Your task to perform on an android device: turn off location history Image 0: 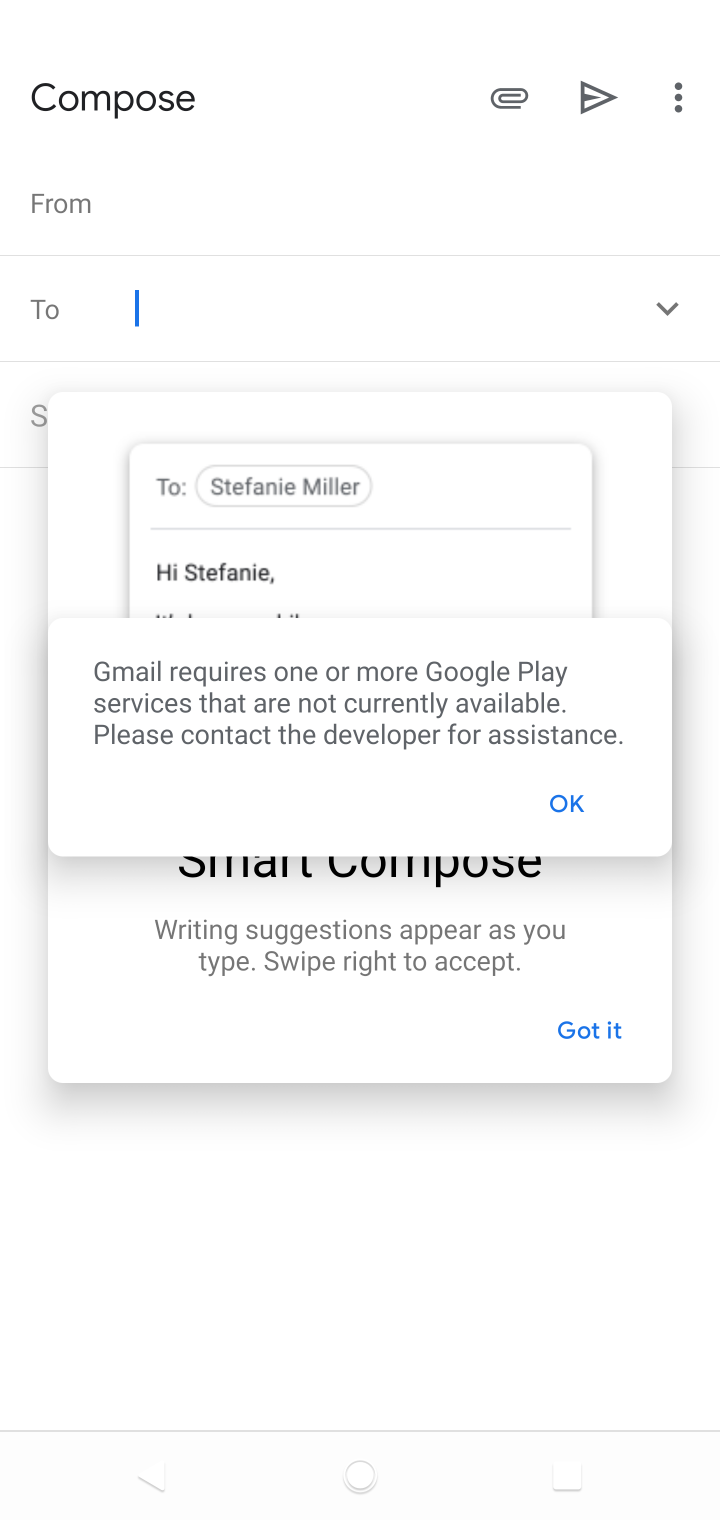
Step 0: press home button
Your task to perform on an android device: turn off location history Image 1: 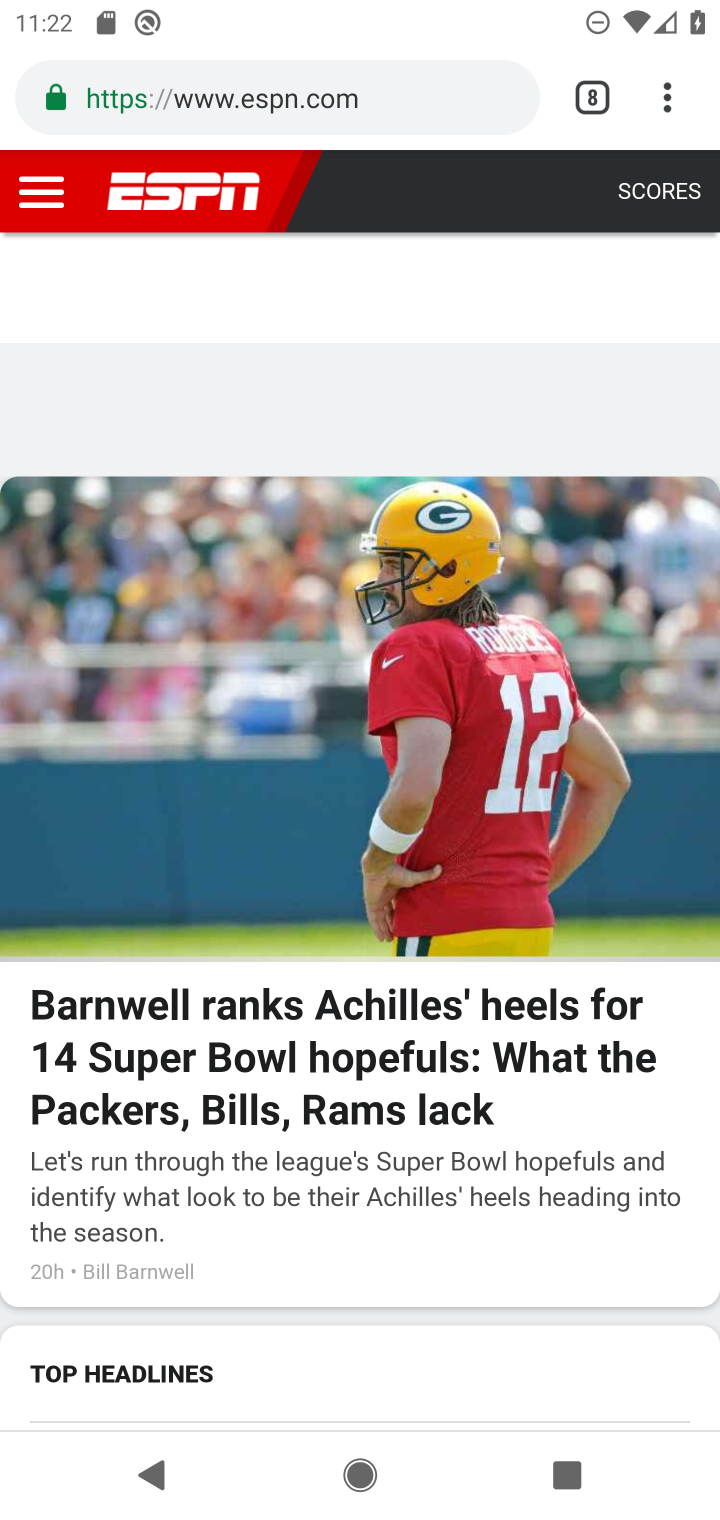
Step 1: press home button
Your task to perform on an android device: turn off location history Image 2: 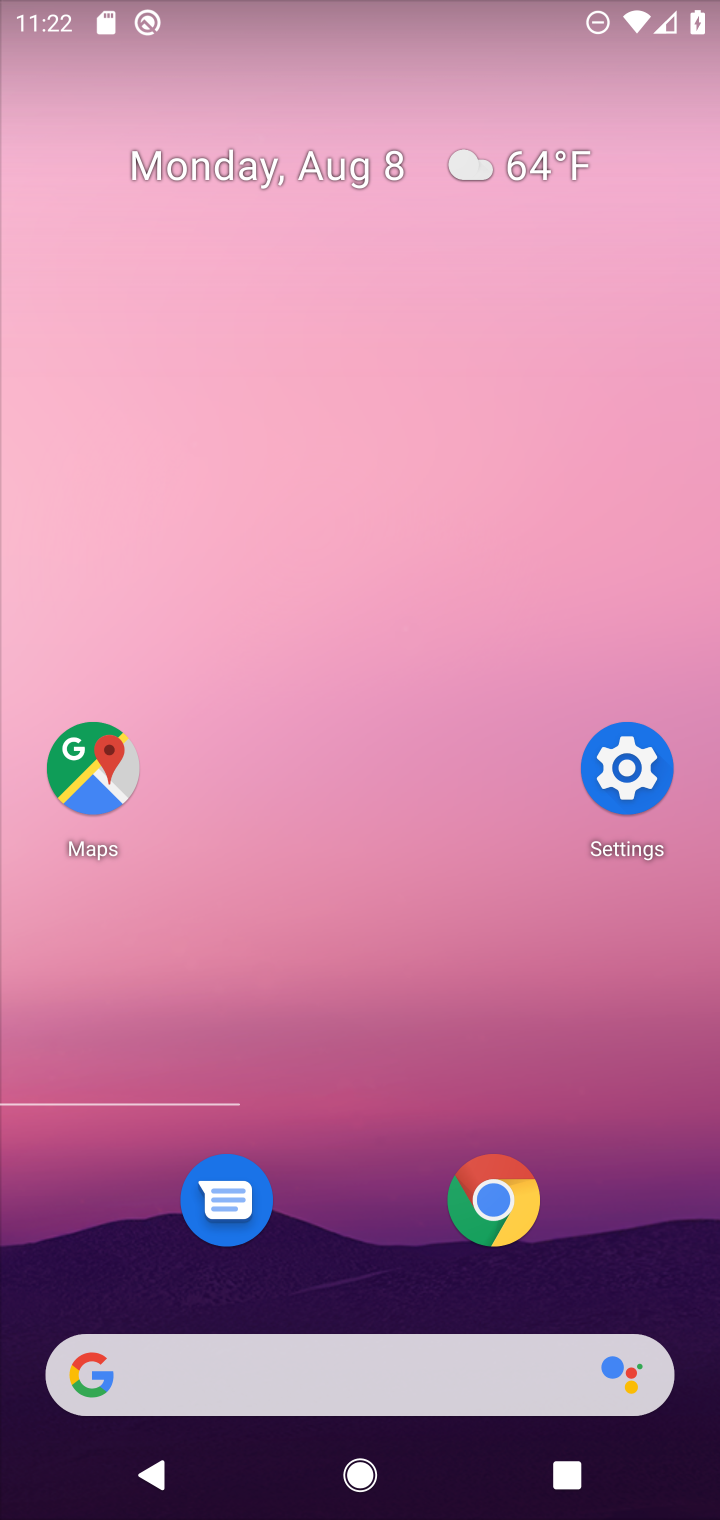
Step 2: click (86, 781)
Your task to perform on an android device: turn off location history Image 3: 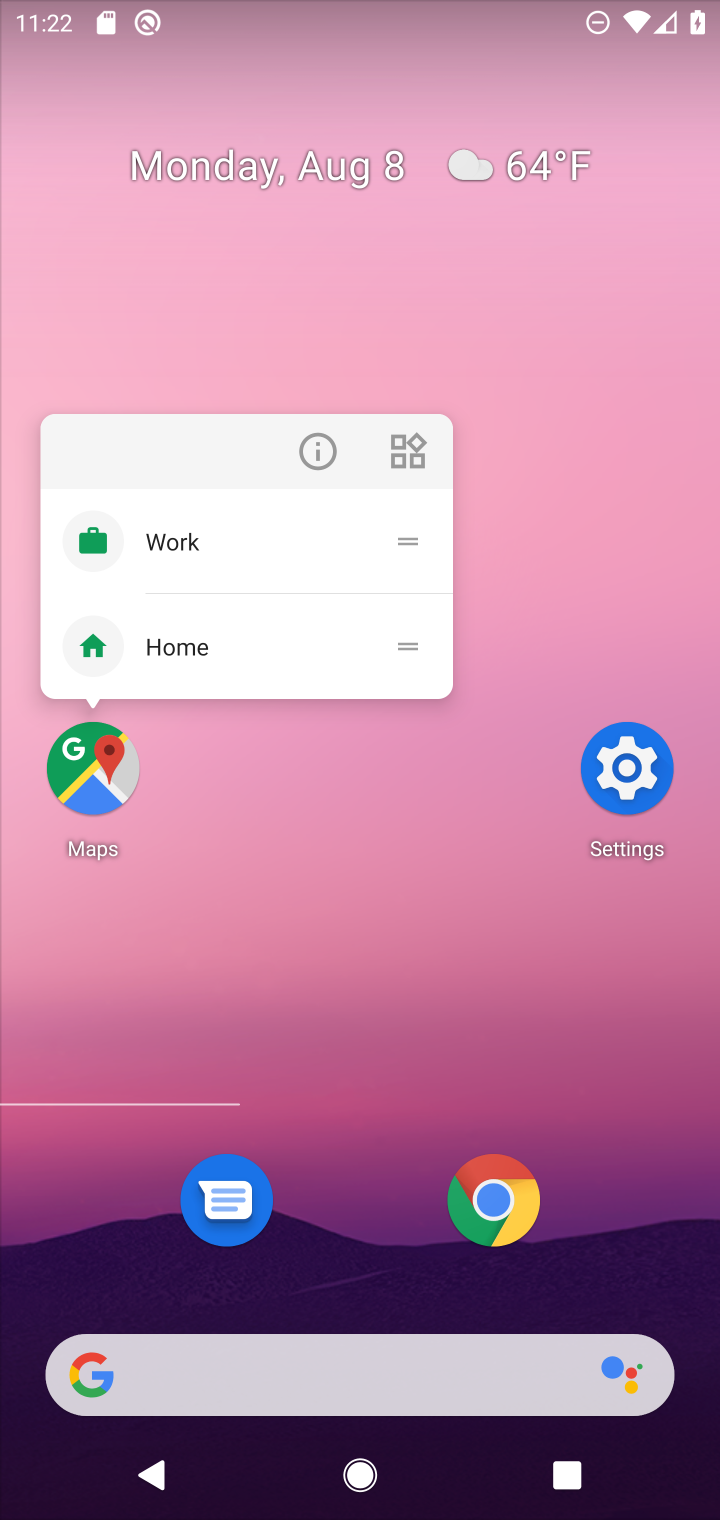
Step 3: click (86, 780)
Your task to perform on an android device: turn off location history Image 4: 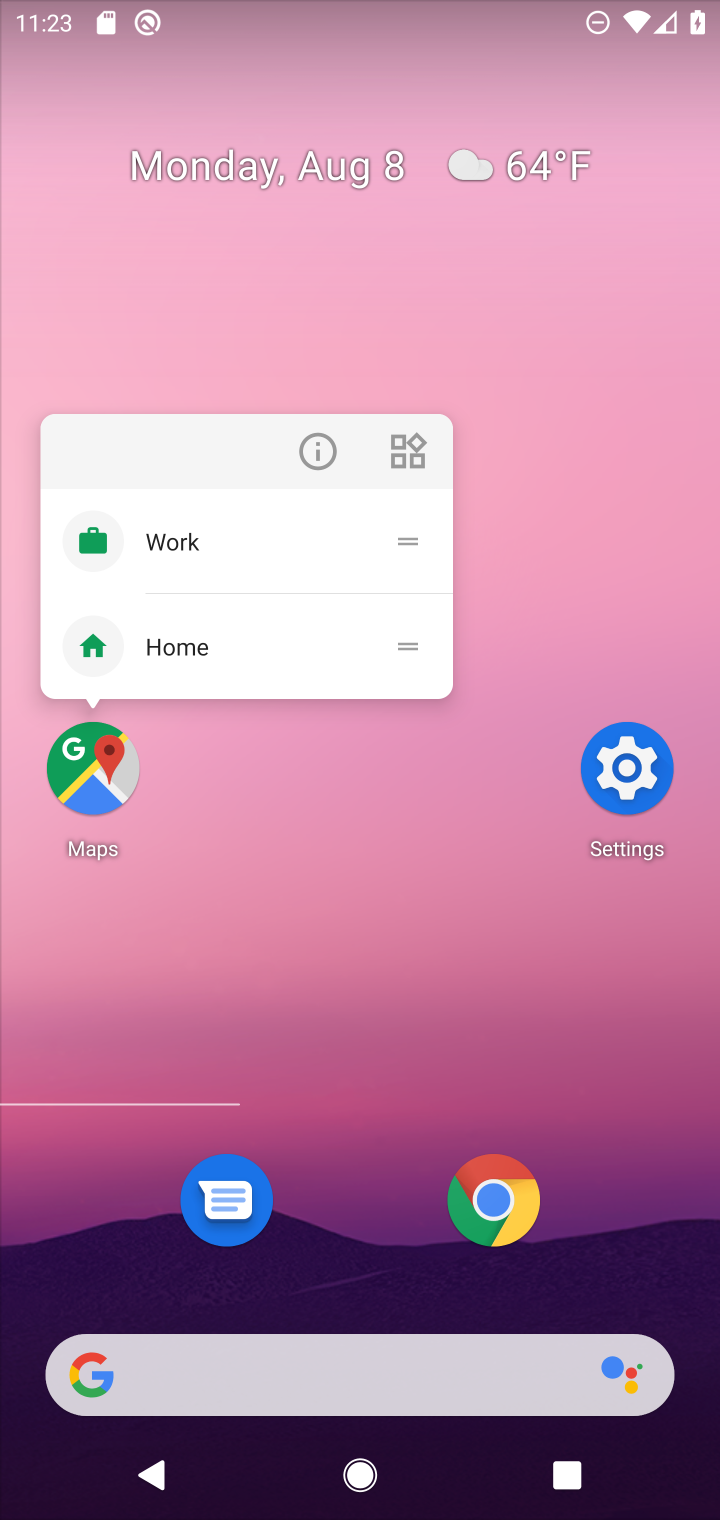
Step 4: click (86, 781)
Your task to perform on an android device: turn off location history Image 5: 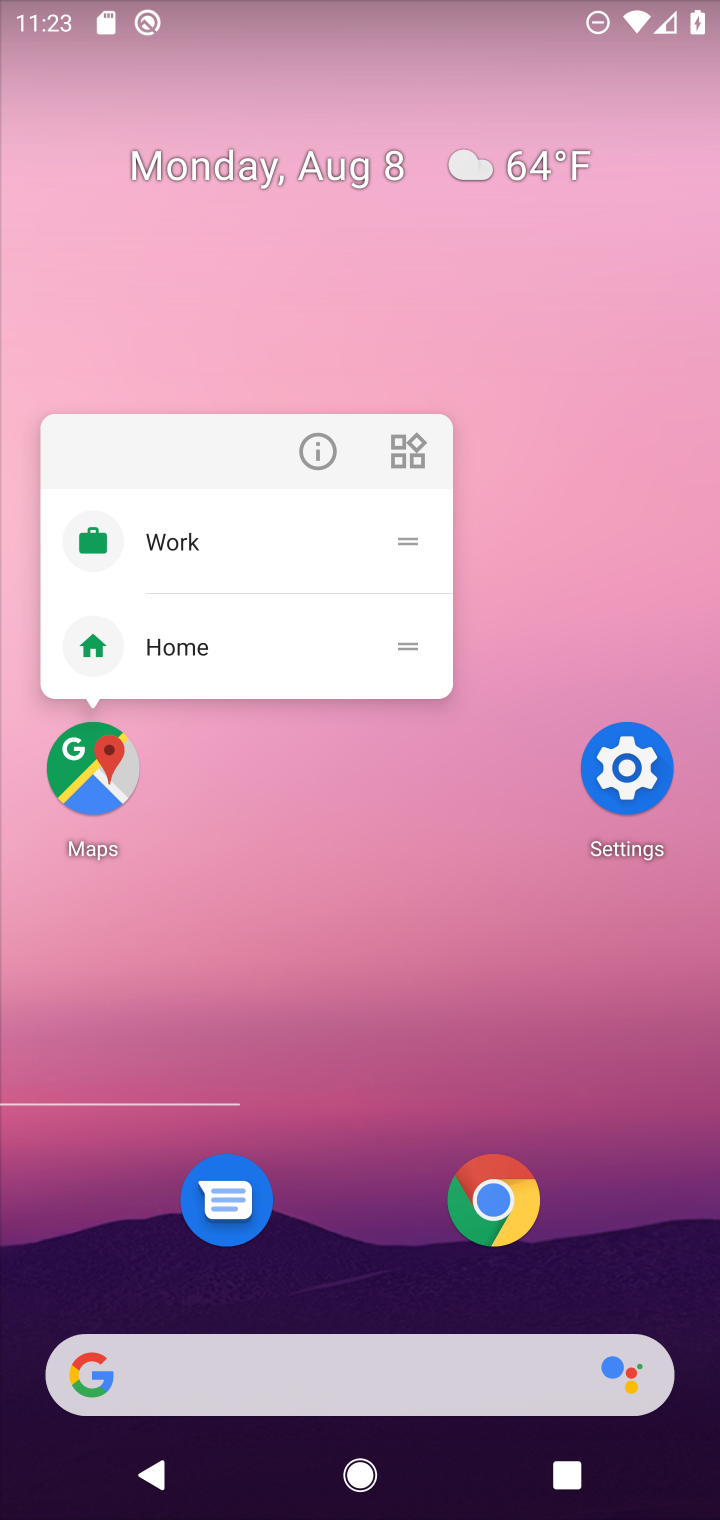
Step 5: click (86, 783)
Your task to perform on an android device: turn off location history Image 6: 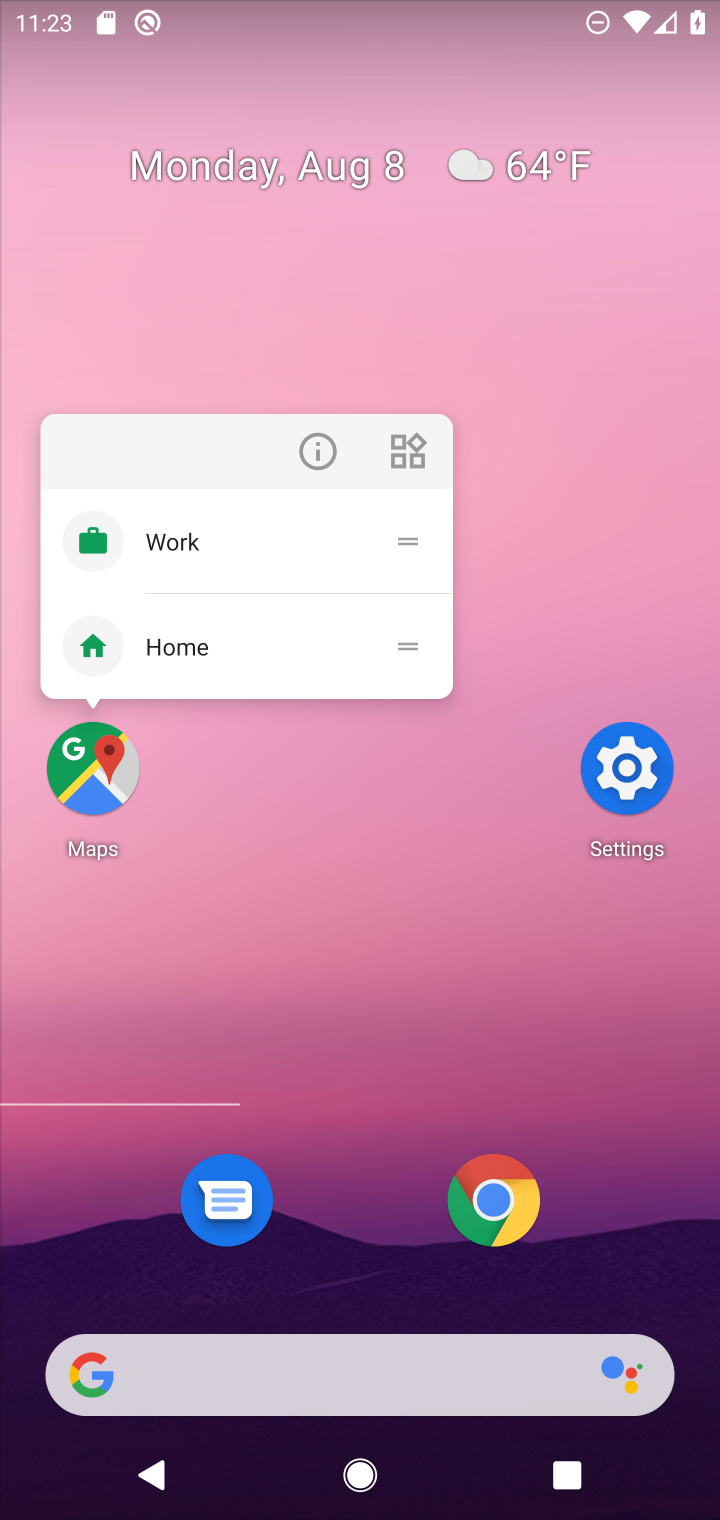
Step 6: click (86, 783)
Your task to perform on an android device: turn off location history Image 7: 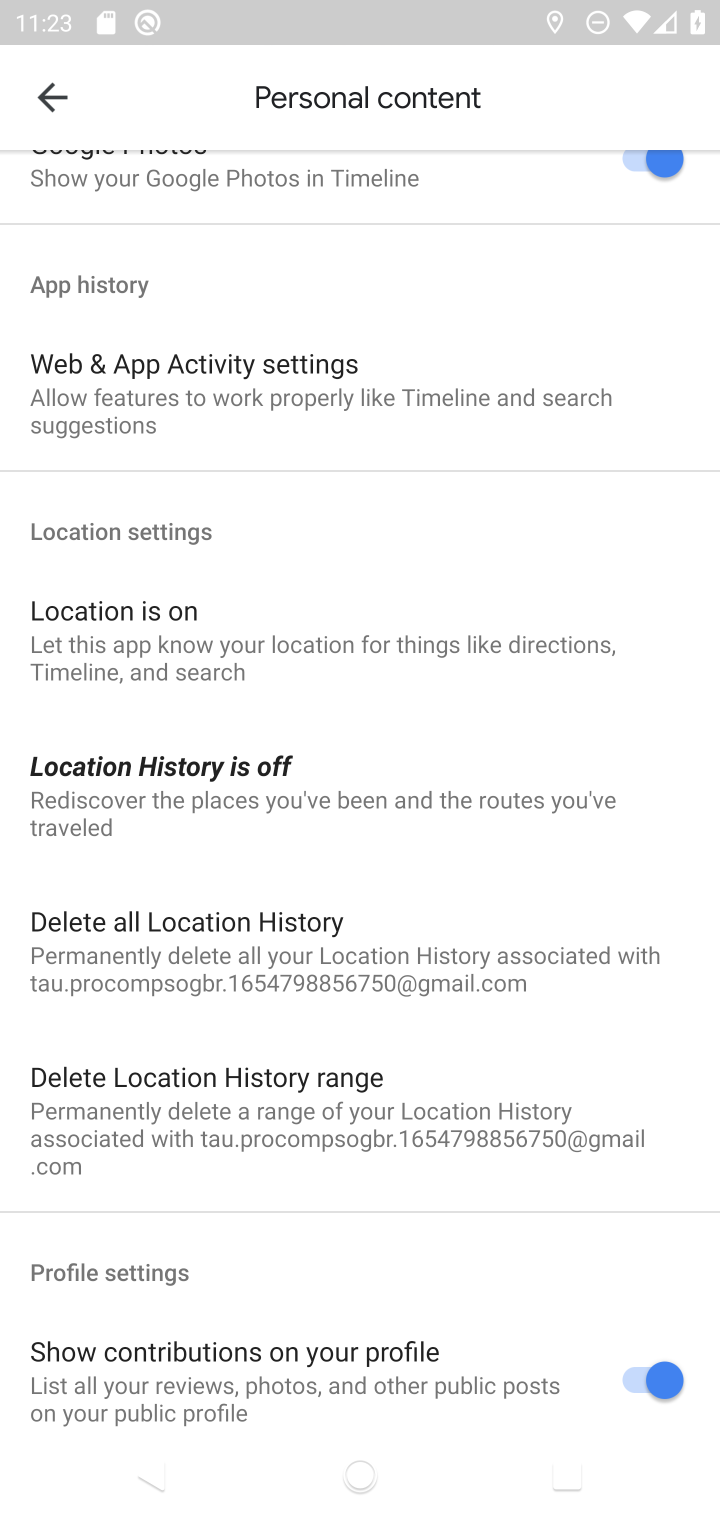
Step 7: click (205, 762)
Your task to perform on an android device: turn off location history Image 8: 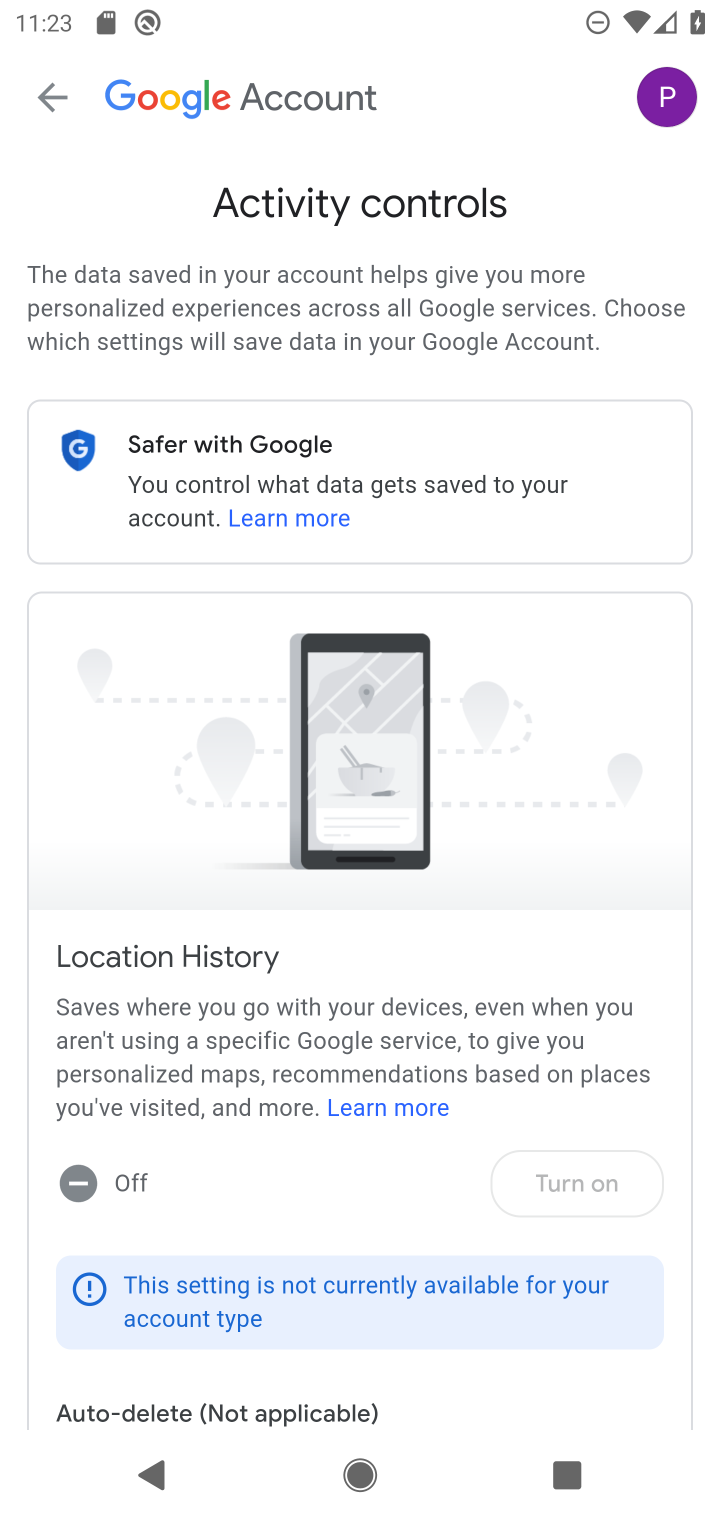
Step 8: task complete